Your task to perform on an android device: turn pop-ups off in chrome Image 0: 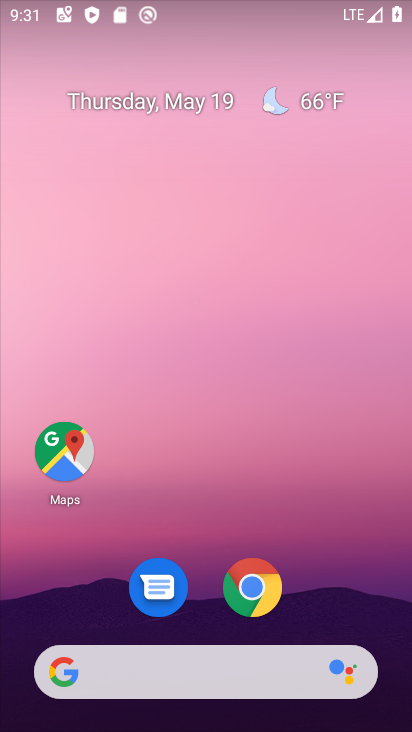
Step 0: drag from (276, 685) to (257, 355)
Your task to perform on an android device: turn pop-ups off in chrome Image 1: 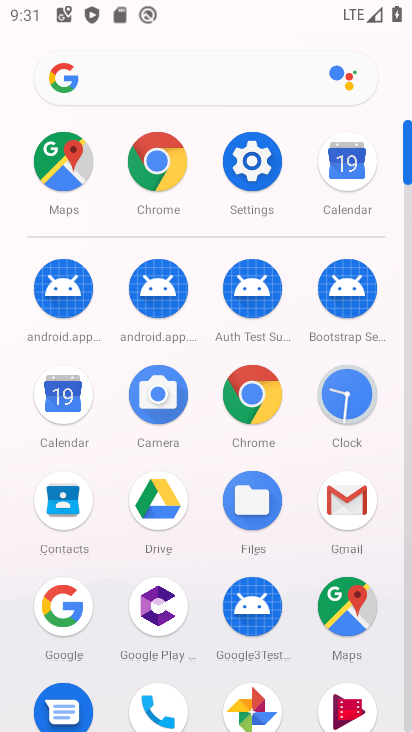
Step 1: click (177, 159)
Your task to perform on an android device: turn pop-ups off in chrome Image 2: 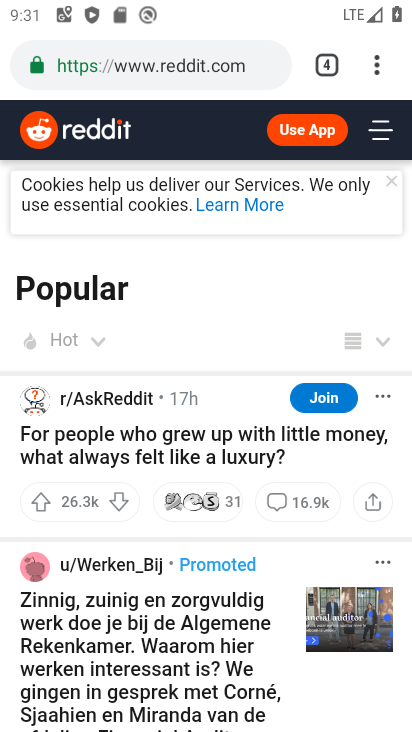
Step 2: click (383, 59)
Your task to perform on an android device: turn pop-ups off in chrome Image 3: 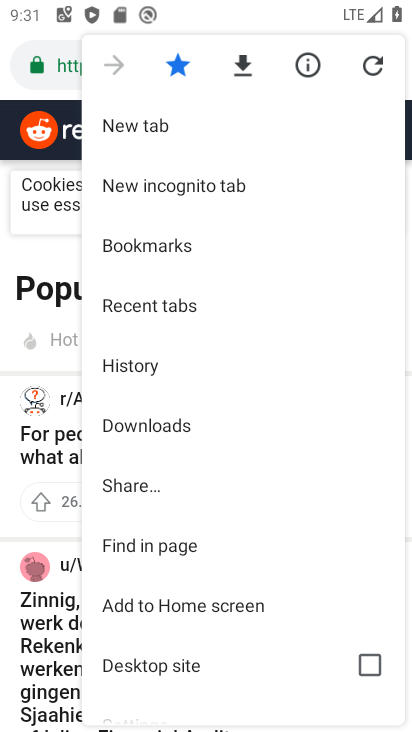
Step 3: drag from (182, 593) to (213, 500)
Your task to perform on an android device: turn pop-ups off in chrome Image 4: 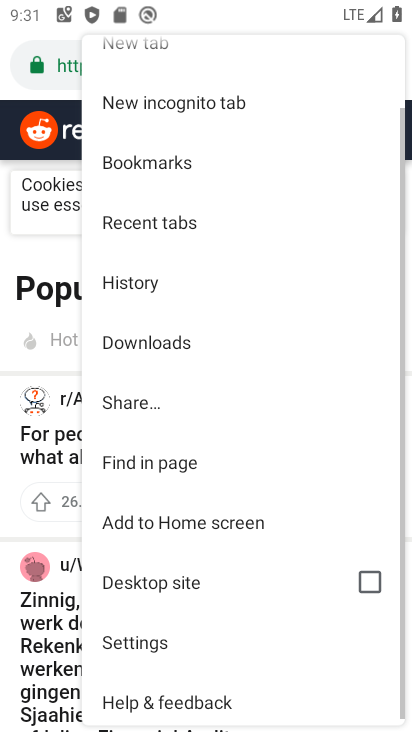
Step 4: click (171, 634)
Your task to perform on an android device: turn pop-ups off in chrome Image 5: 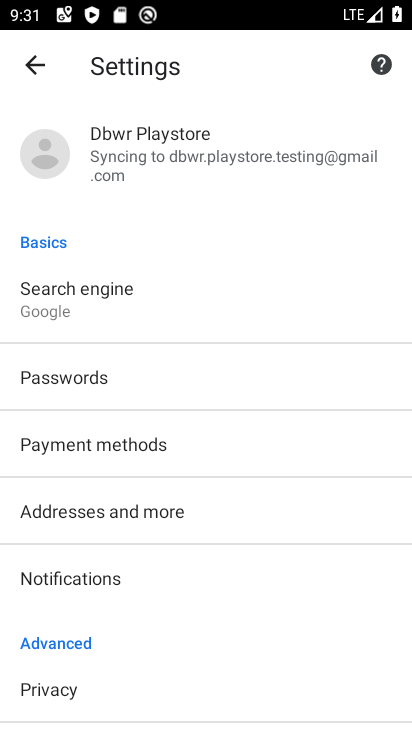
Step 5: drag from (177, 631) to (208, 410)
Your task to perform on an android device: turn pop-ups off in chrome Image 6: 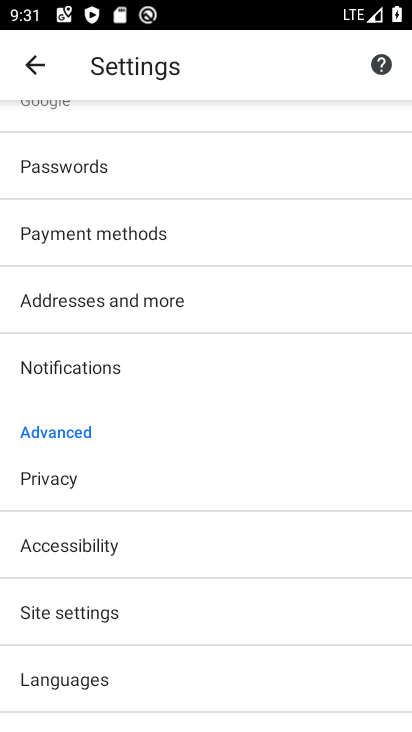
Step 6: click (87, 610)
Your task to perform on an android device: turn pop-ups off in chrome Image 7: 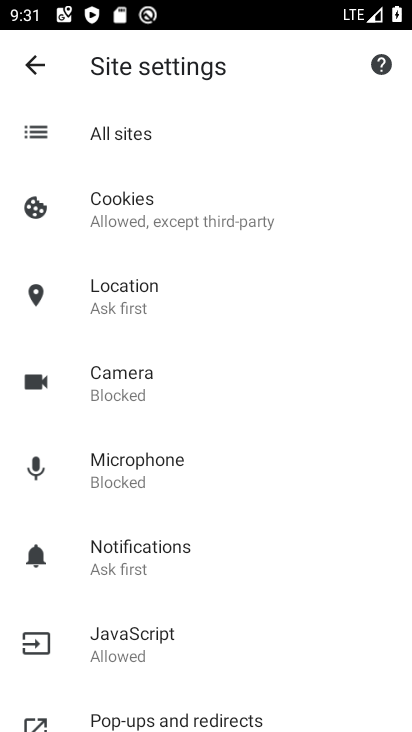
Step 7: click (164, 710)
Your task to perform on an android device: turn pop-ups off in chrome Image 8: 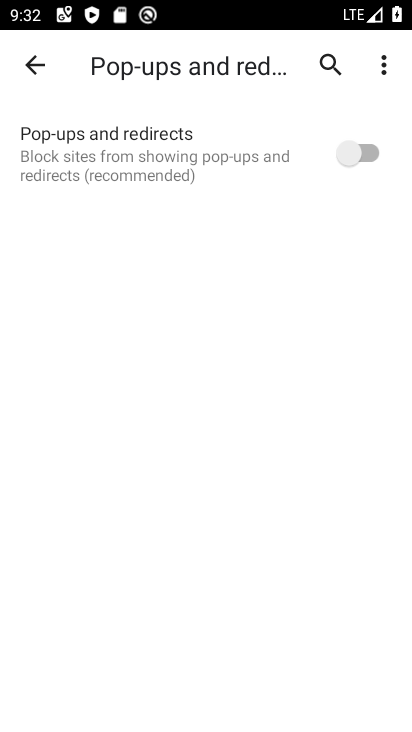
Step 8: click (368, 165)
Your task to perform on an android device: turn pop-ups off in chrome Image 9: 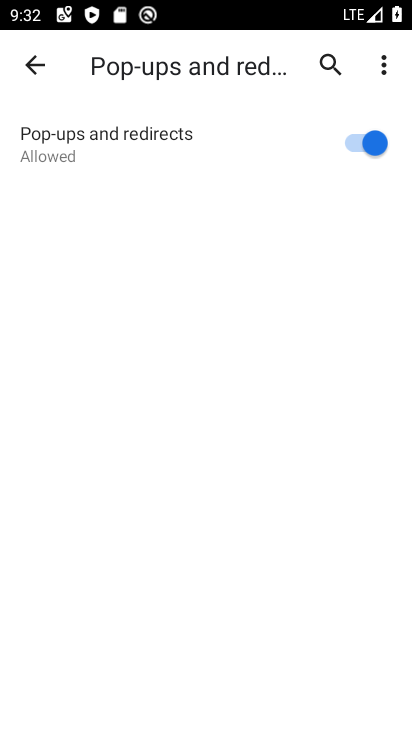
Step 9: click (360, 157)
Your task to perform on an android device: turn pop-ups off in chrome Image 10: 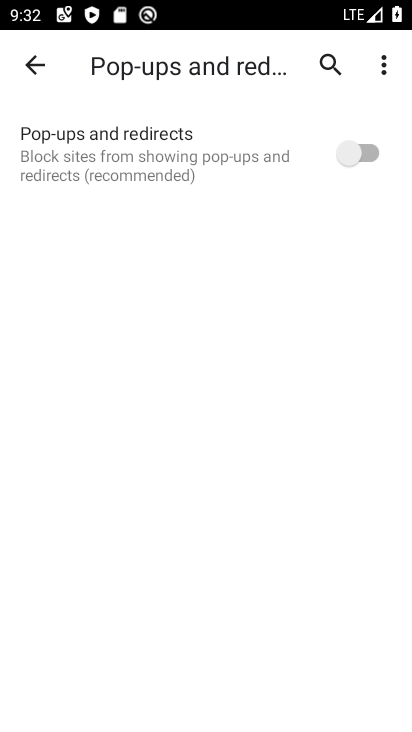
Step 10: task complete